Your task to perform on an android device: Search for the best rated lawnmower on Lowes.com Image 0: 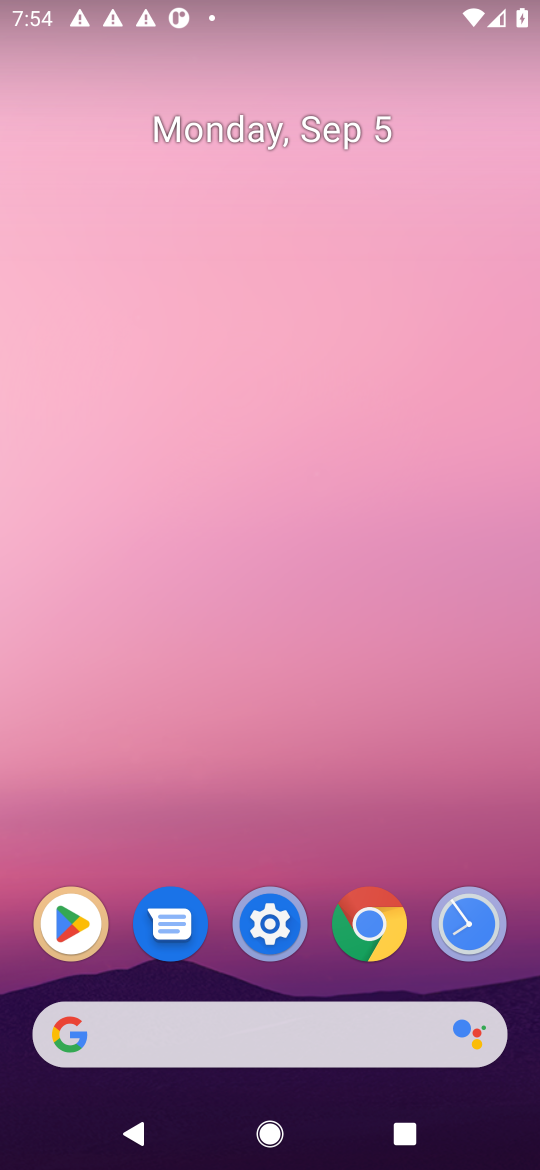
Step 0: click (338, 1040)
Your task to perform on an android device: Search for the best rated lawnmower on Lowes.com Image 1: 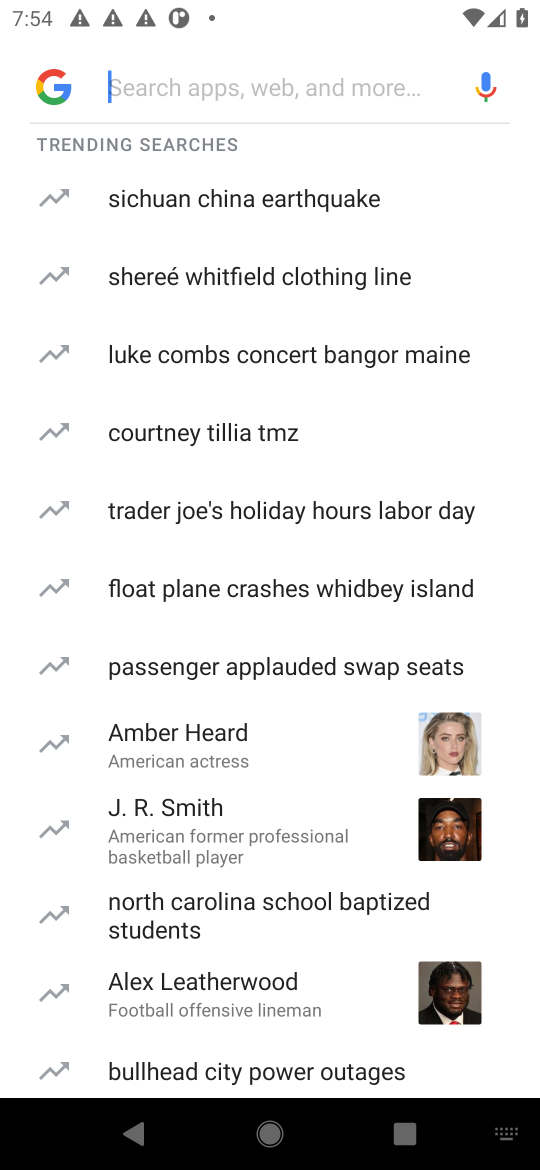
Step 1: type "lowes.com"
Your task to perform on an android device: Search for the best rated lawnmower on Lowes.com Image 2: 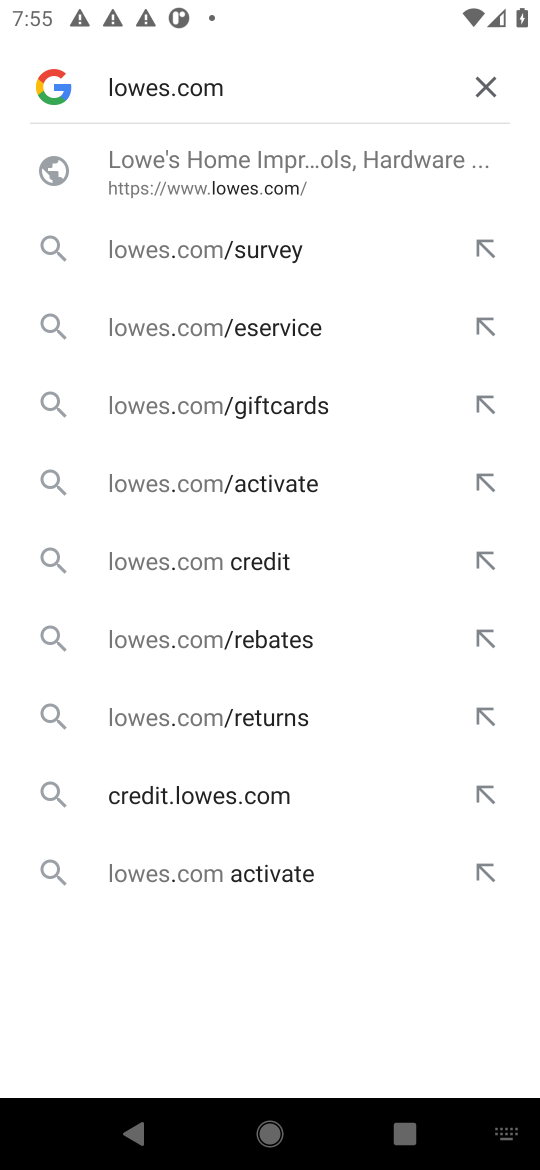
Step 2: press enter
Your task to perform on an android device: Search for the best rated lawnmower on Lowes.com Image 3: 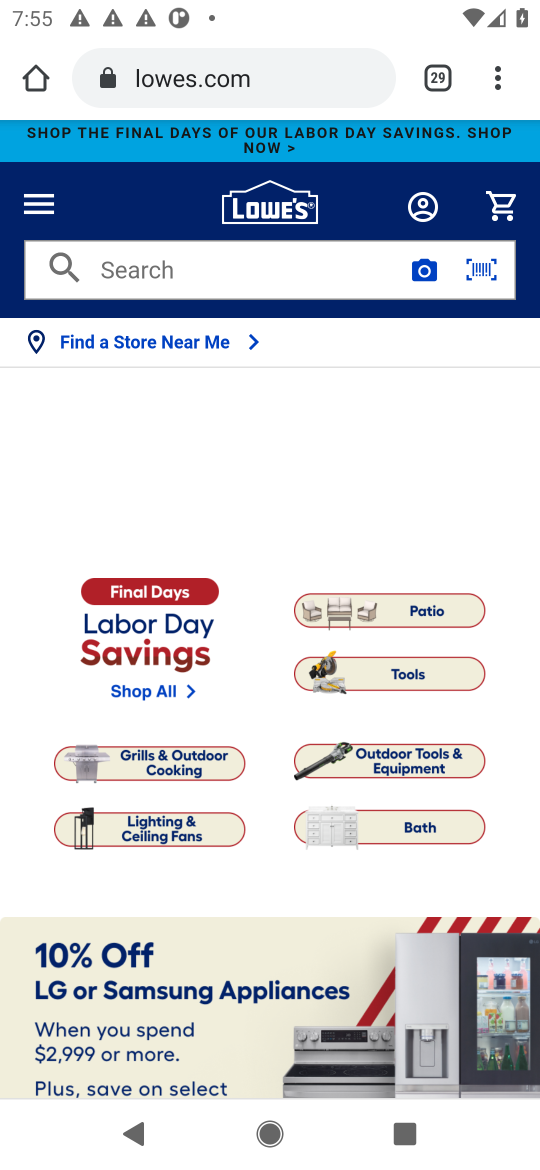
Step 3: click (251, 257)
Your task to perform on an android device: Search for the best rated lawnmower on Lowes.com Image 4: 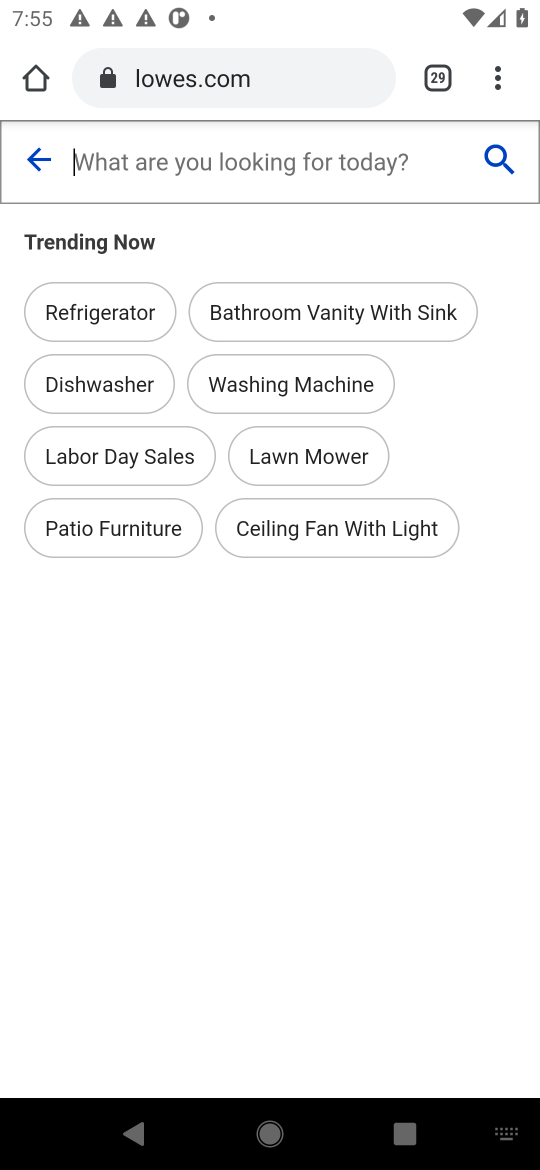
Step 4: type "best rated lawnmower"
Your task to perform on an android device: Search for the best rated lawnmower on Lowes.com Image 5: 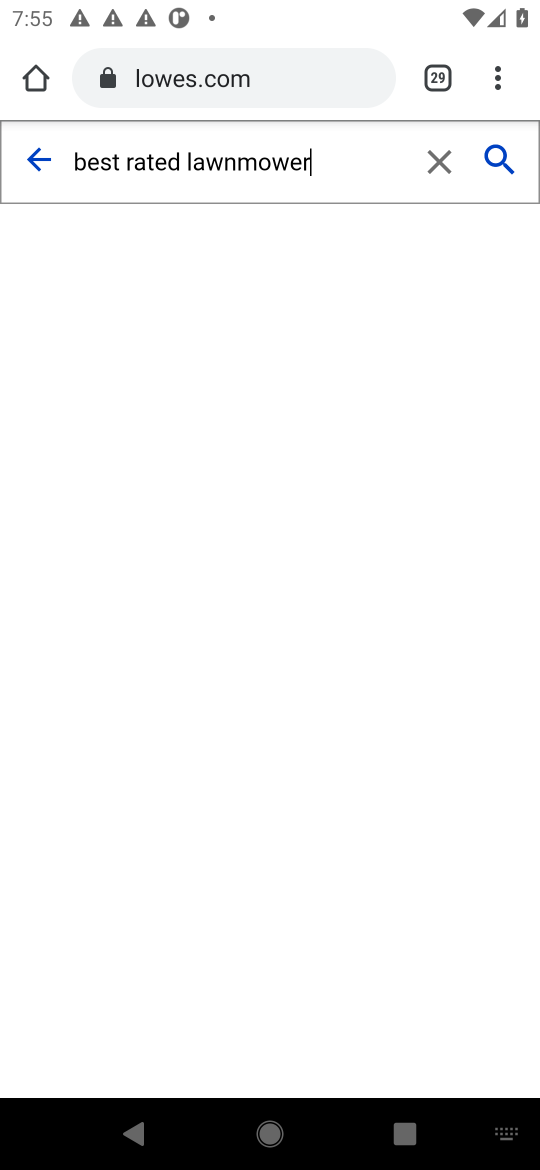
Step 5: press enter
Your task to perform on an android device: Search for the best rated lawnmower on Lowes.com Image 6: 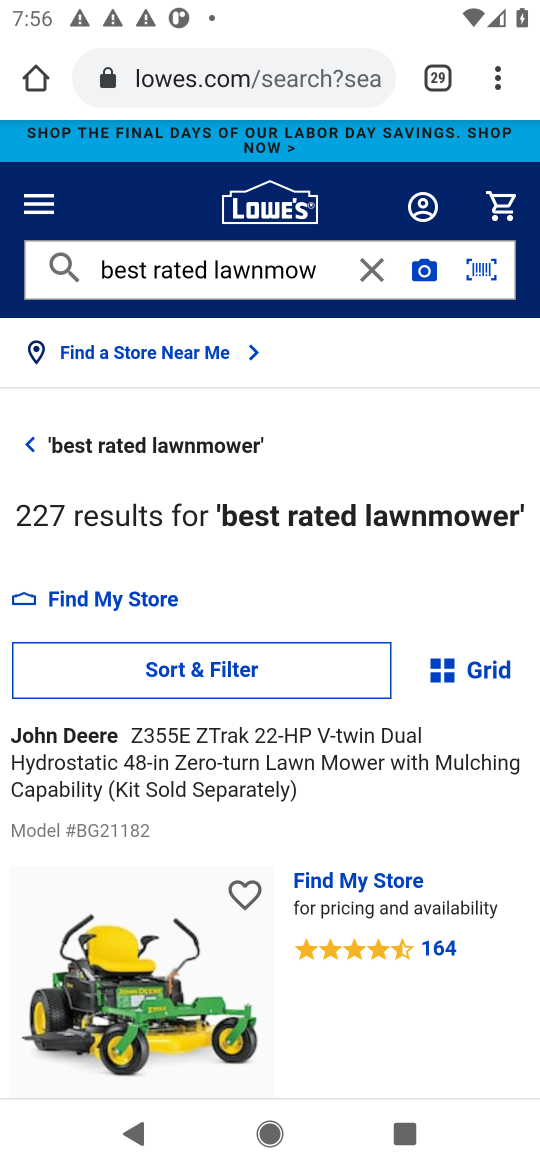
Step 6: task complete